Your task to perform on an android device: Clear all items from cart on amazon. Search for bose soundsport free on amazon, select the first entry, and add it to the cart. Image 0: 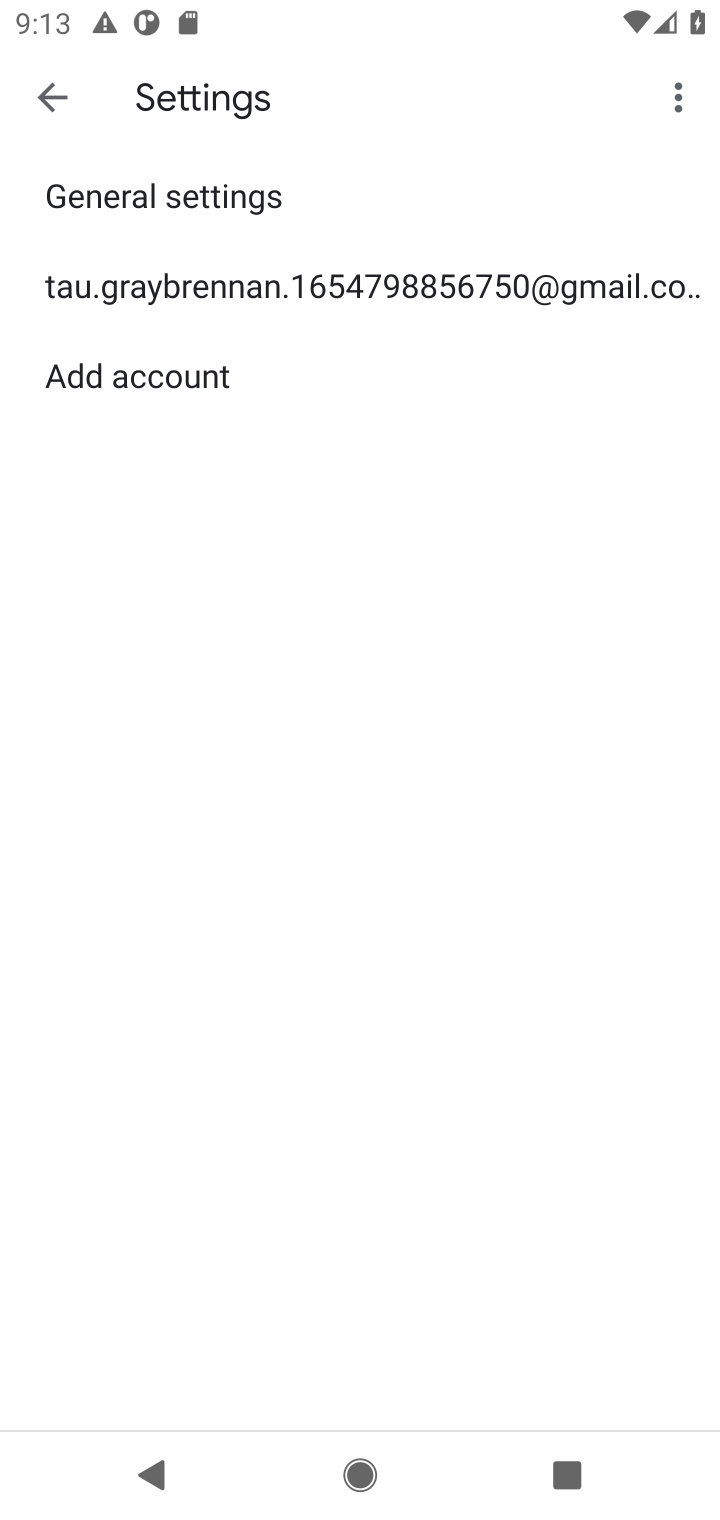
Step 0: press home button
Your task to perform on an android device: Clear all items from cart on amazon. Search for bose soundsport free on amazon, select the first entry, and add it to the cart. Image 1: 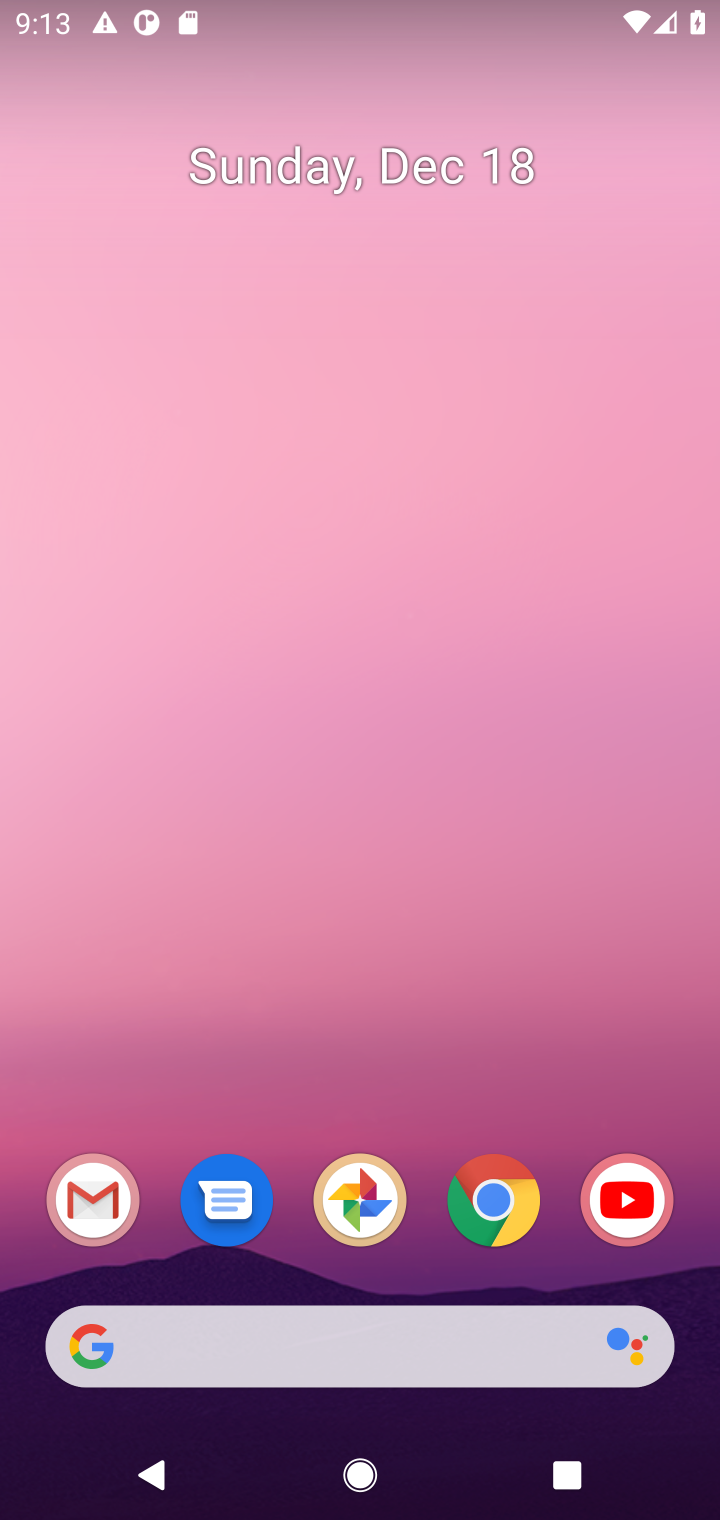
Step 1: click (487, 1212)
Your task to perform on an android device: Clear all items from cart on amazon. Search for bose soundsport free on amazon, select the first entry, and add it to the cart. Image 2: 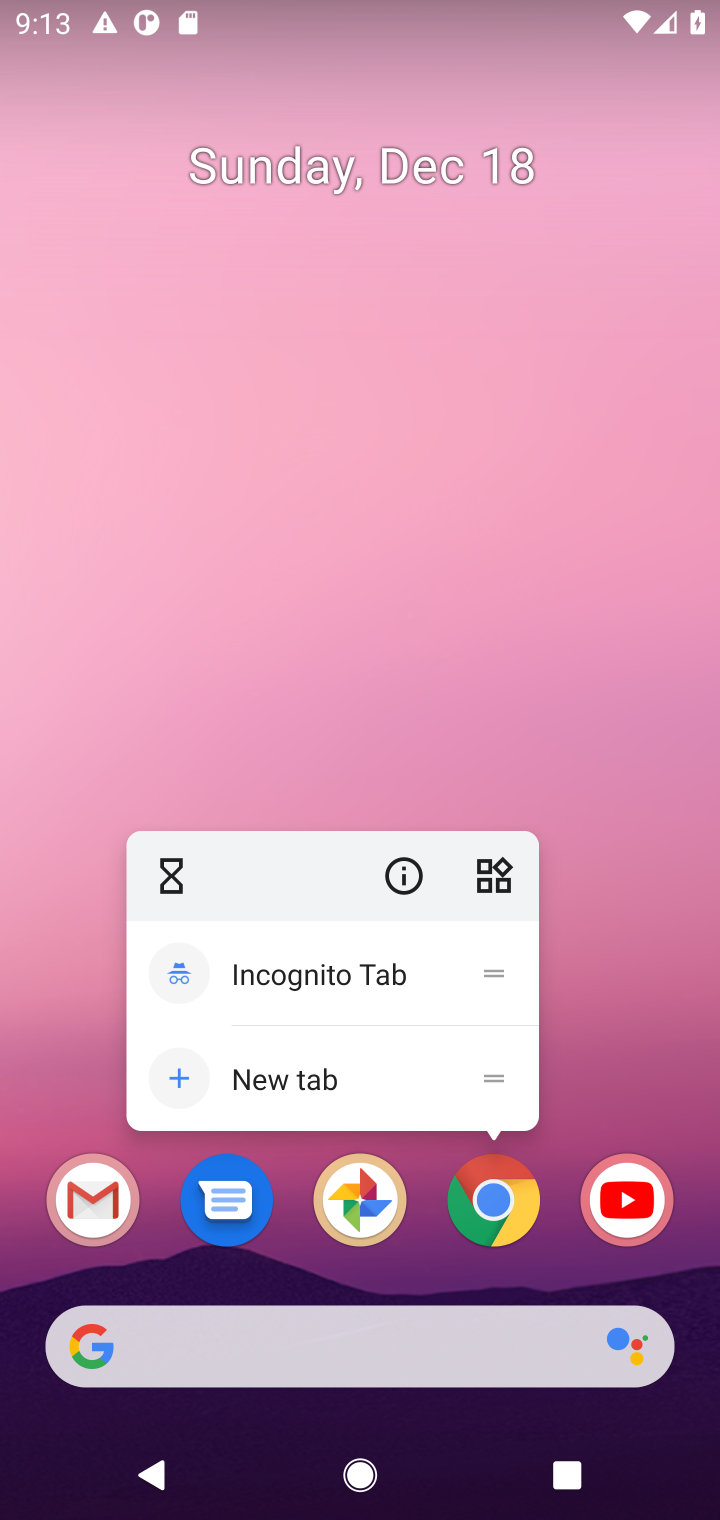
Step 2: click (488, 1212)
Your task to perform on an android device: Clear all items from cart on amazon. Search for bose soundsport free on amazon, select the first entry, and add it to the cart. Image 3: 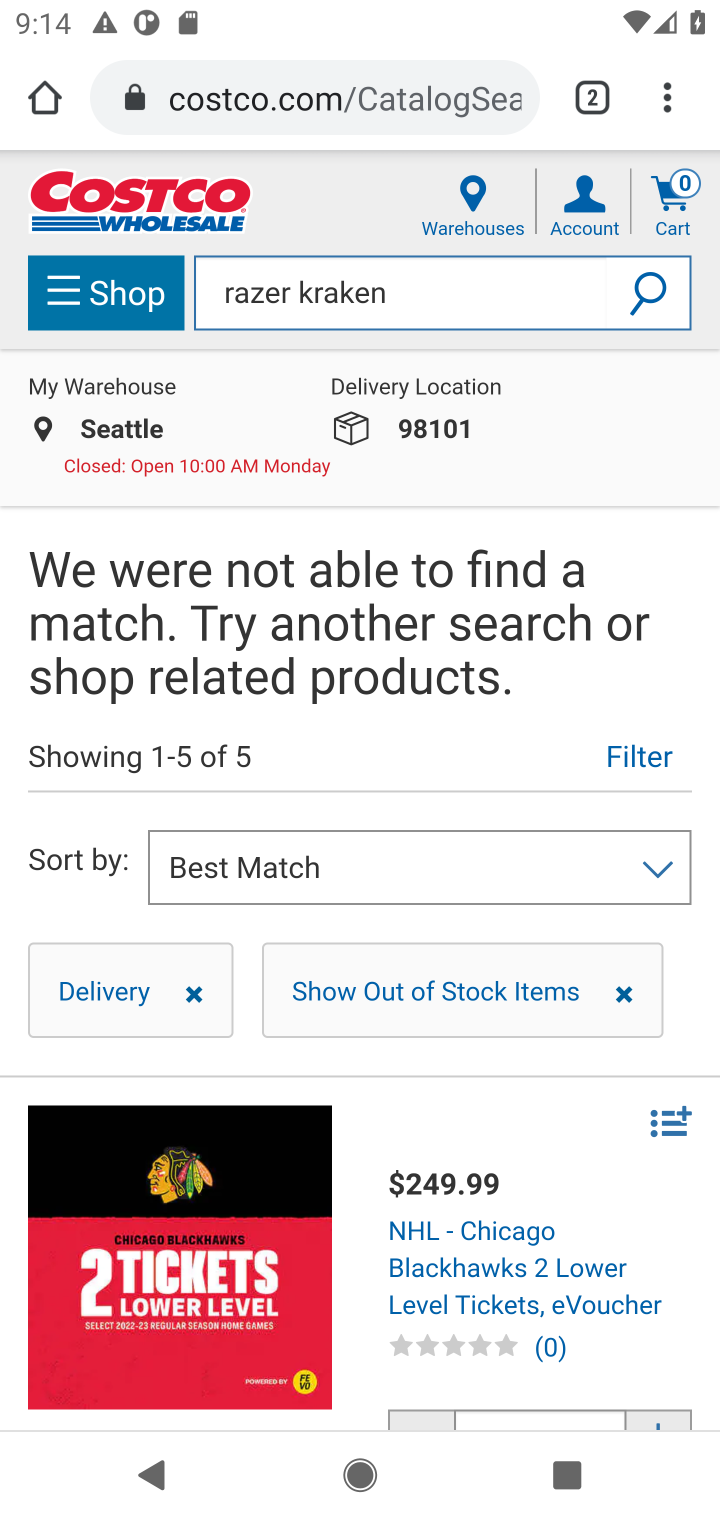
Step 3: click (220, 108)
Your task to perform on an android device: Clear all items from cart on amazon. Search for bose soundsport free on amazon, select the first entry, and add it to the cart. Image 4: 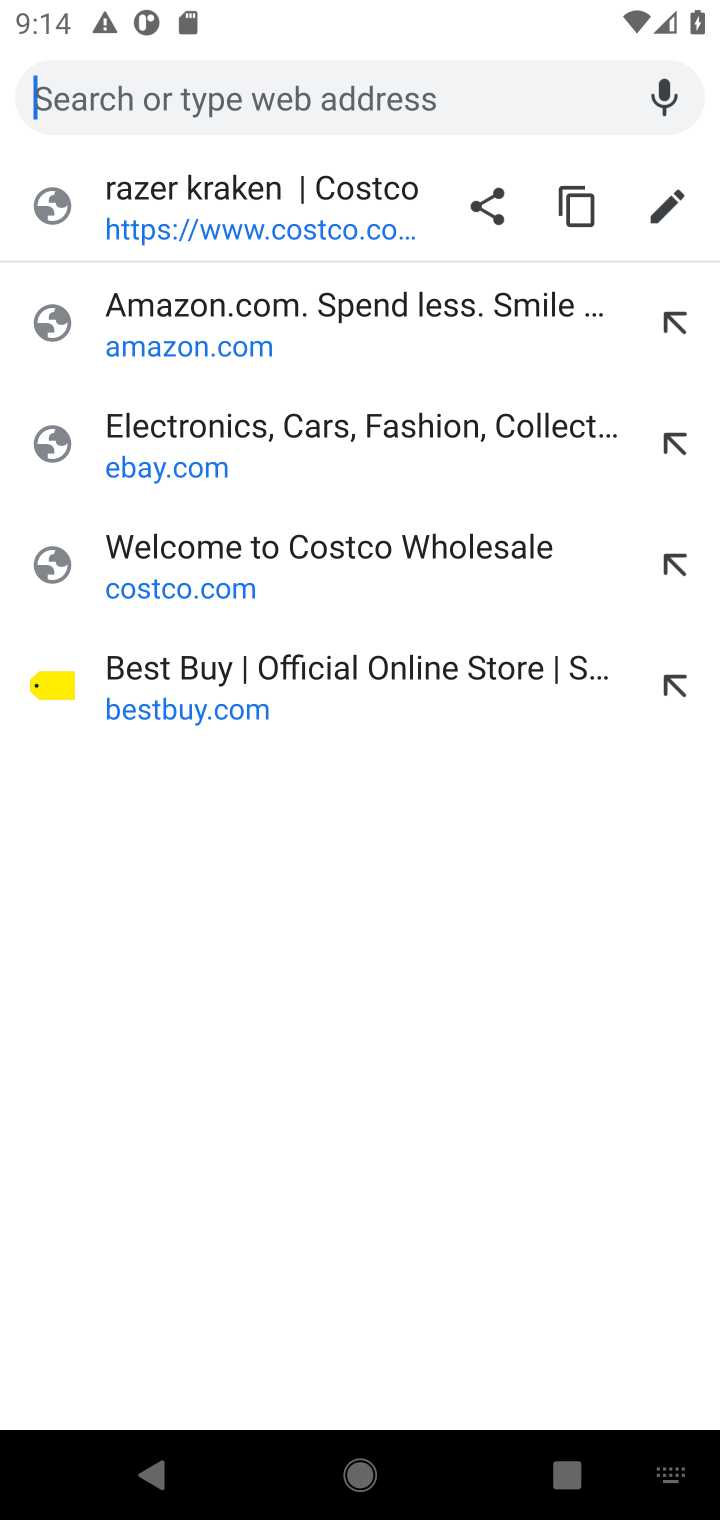
Step 4: click (142, 324)
Your task to perform on an android device: Clear all items from cart on amazon. Search for bose soundsport free on amazon, select the first entry, and add it to the cart. Image 5: 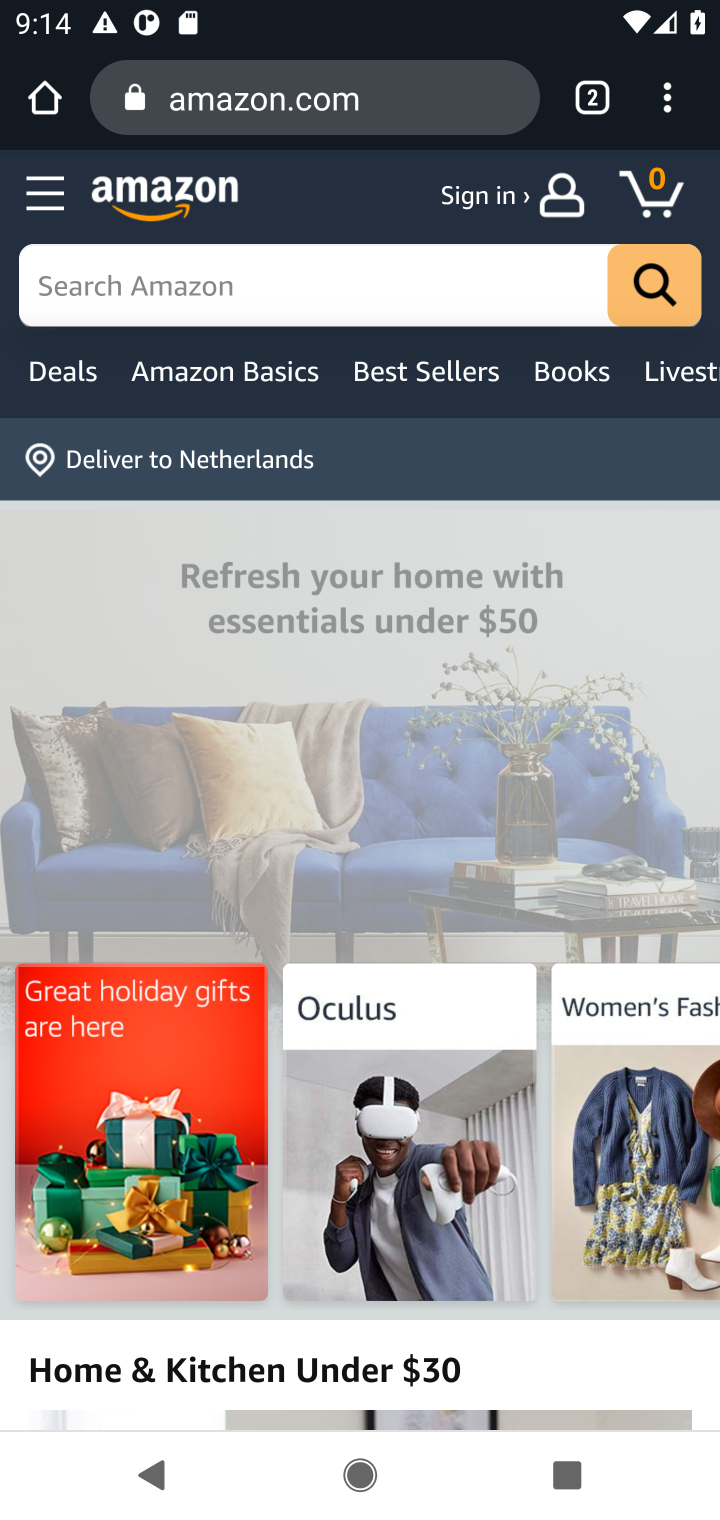
Step 5: click (648, 199)
Your task to perform on an android device: Clear all items from cart on amazon. Search for bose soundsport free on amazon, select the first entry, and add it to the cart. Image 6: 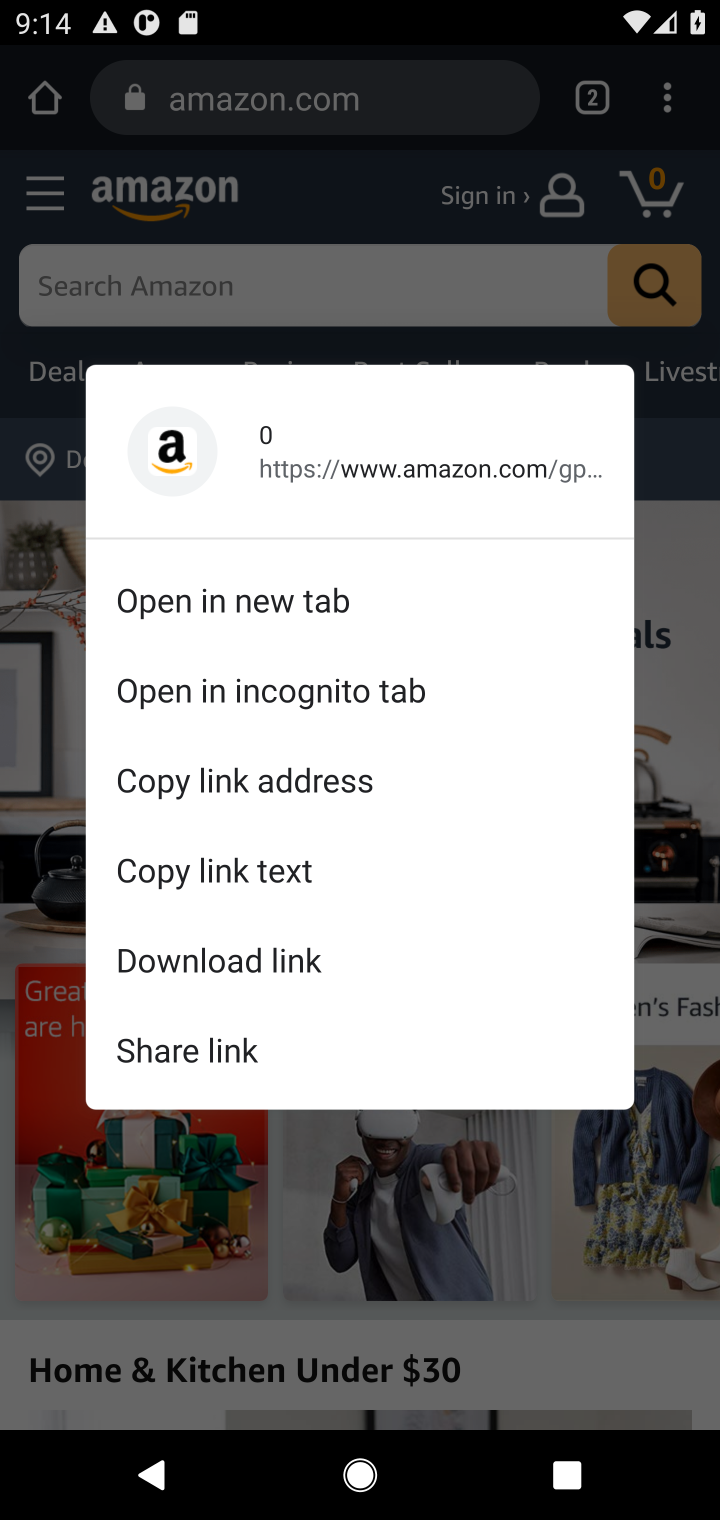
Step 6: click (646, 199)
Your task to perform on an android device: Clear all items from cart on amazon. Search for bose soundsport free on amazon, select the first entry, and add it to the cart. Image 7: 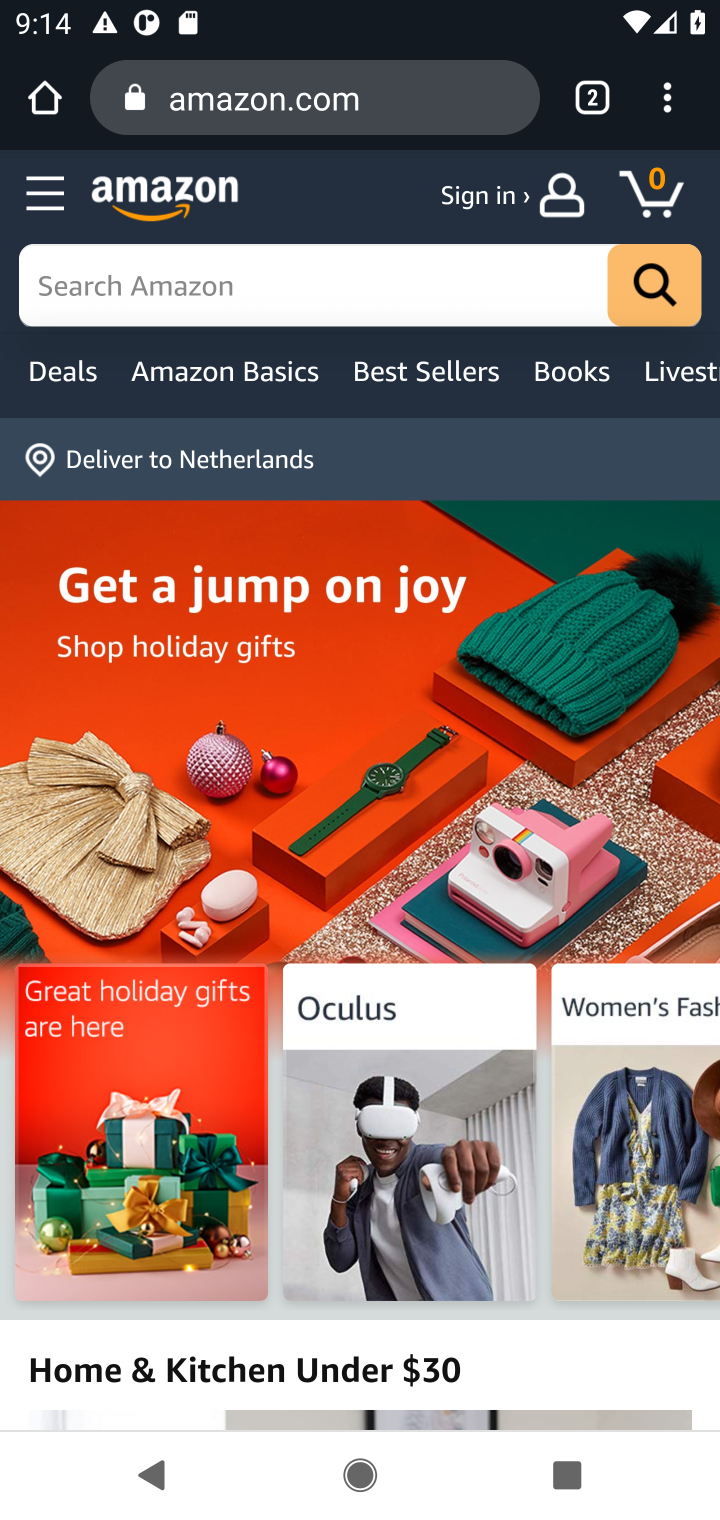
Step 7: click (644, 199)
Your task to perform on an android device: Clear all items from cart on amazon. Search for bose soundsport free on amazon, select the first entry, and add it to the cart. Image 8: 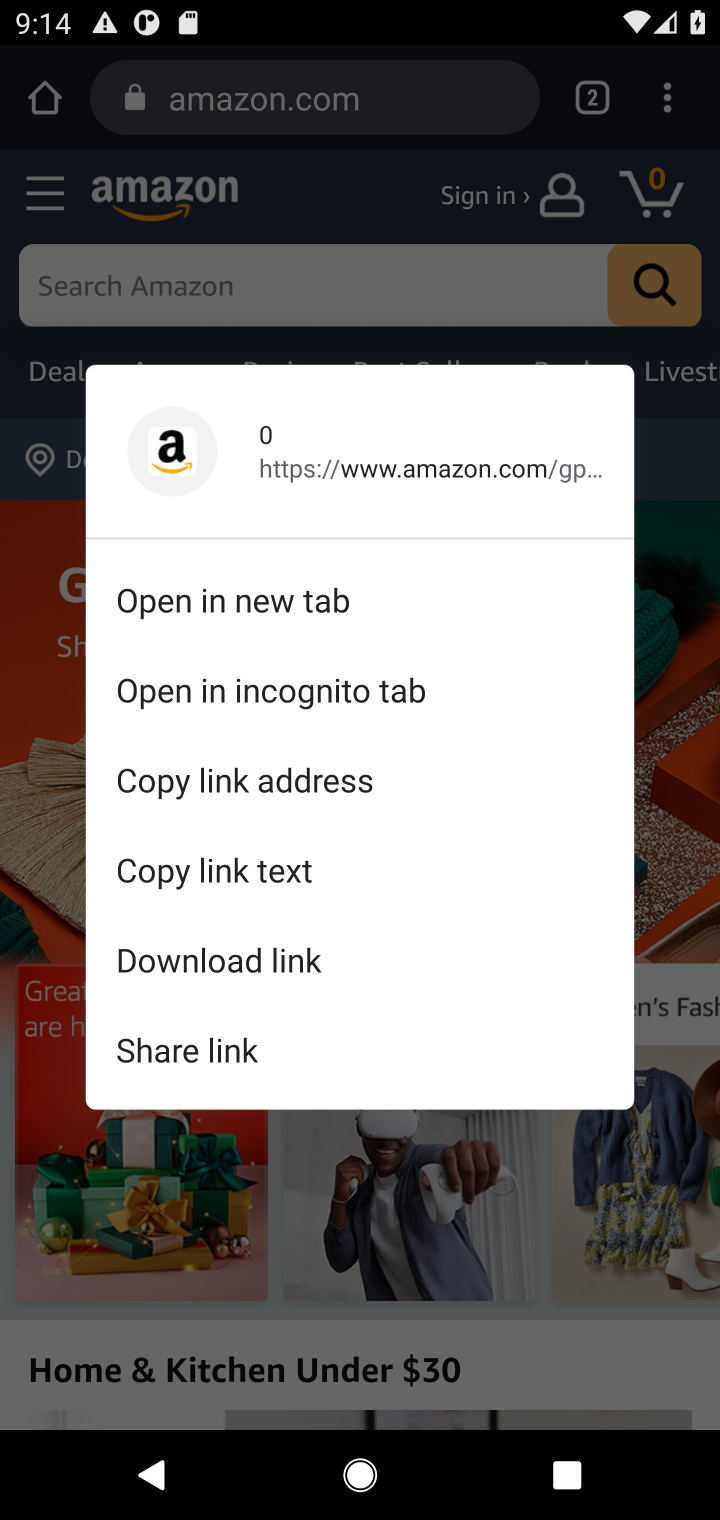
Step 8: click (644, 199)
Your task to perform on an android device: Clear all items from cart on amazon. Search for bose soundsport free on amazon, select the first entry, and add it to the cart. Image 9: 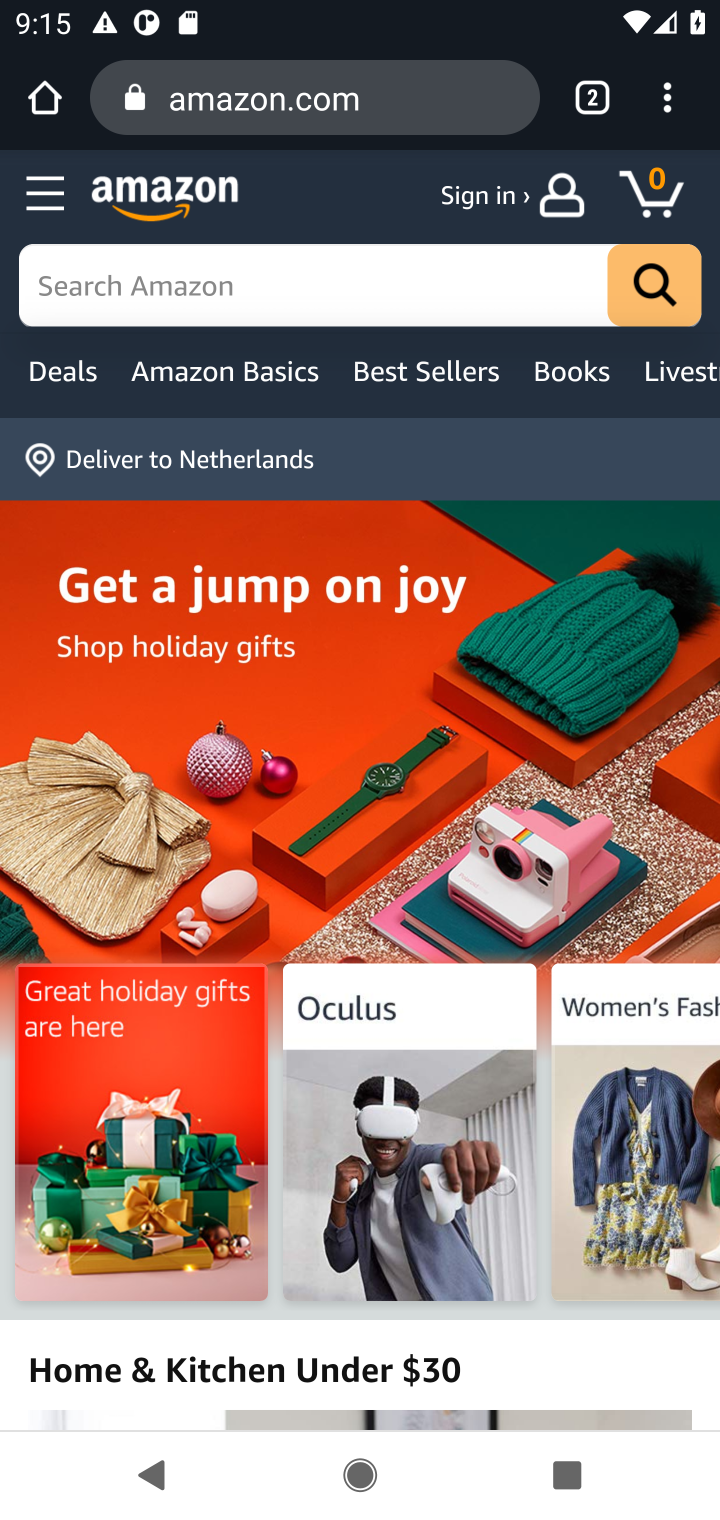
Step 9: click (645, 189)
Your task to perform on an android device: Clear all items from cart on amazon. Search for bose soundsport free on amazon, select the first entry, and add it to the cart. Image 10: 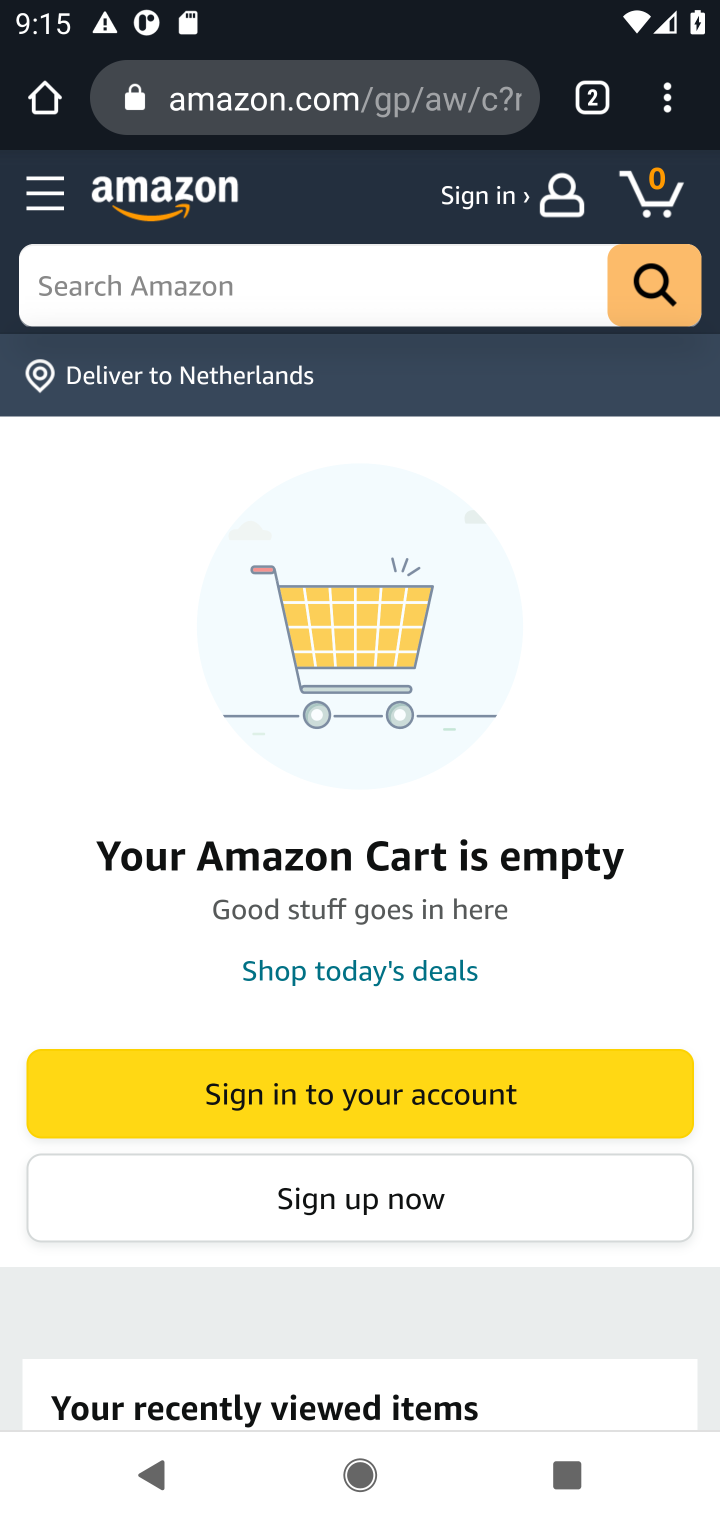
Step 10: click (105, 302)
Your task to perform on an android device: Clear all items from cart on amazon. Search for bose soundsport free on amazon, select the first entry, and add it to the cart. Image 11: 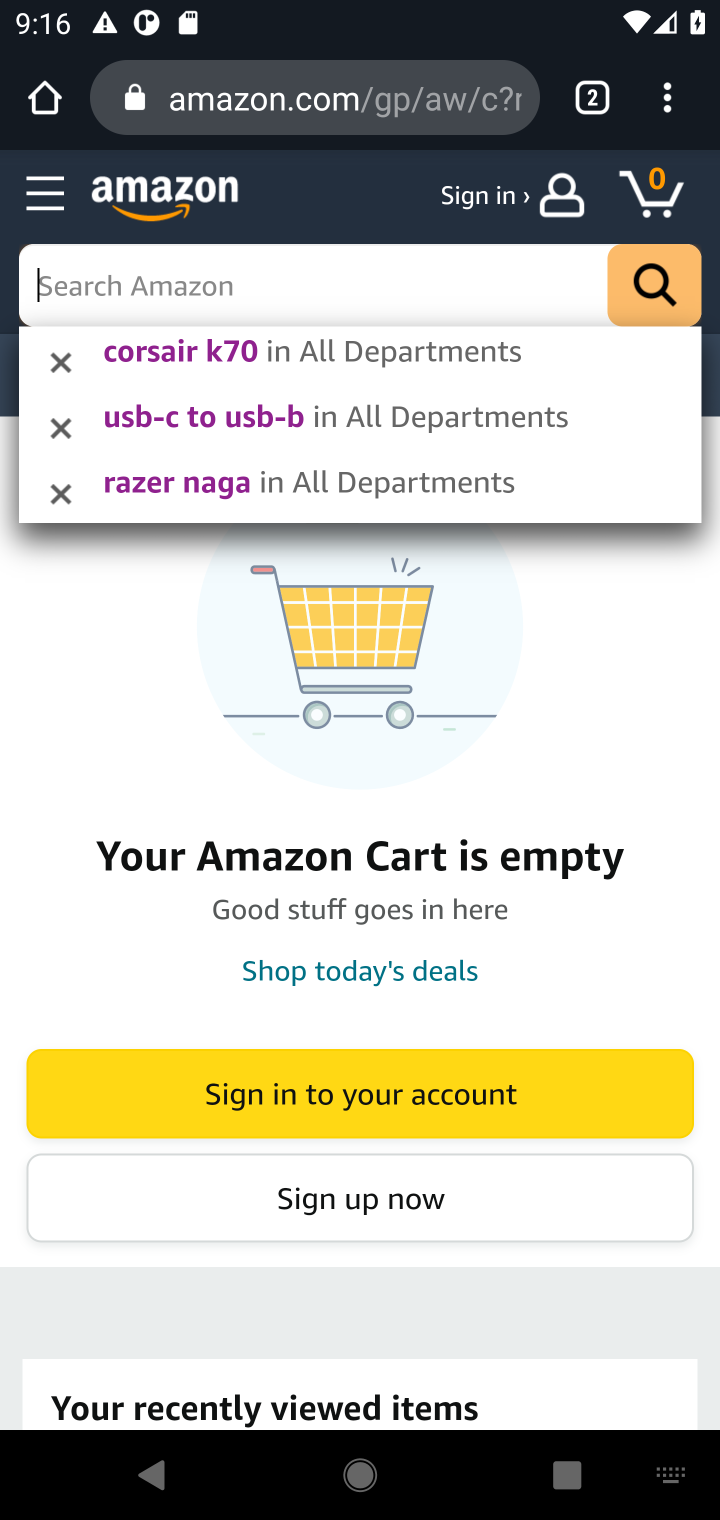
Step 11: type "bose soundsport free"
Your task to perform on an android device: Clear all items from cart on amazon. Search for bose soundsport free on amazon, select the first entry, and add it to the cart. Image 12: 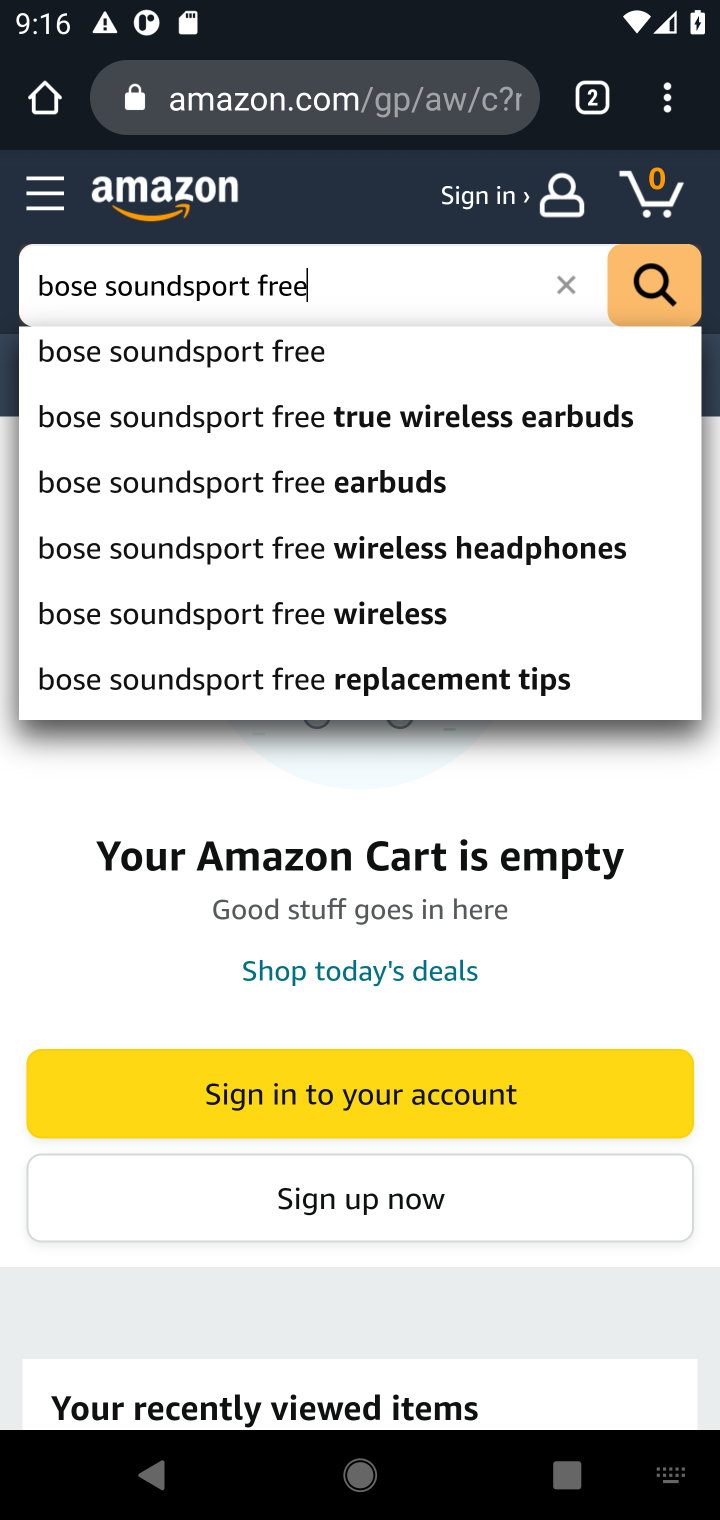
Step 12: click (173, 351)
Your task to perform on an android device: Clear all items from cart on amazon. Search for bose soundsport free on amazon, select the first entry, and add it to the cart. Image 13: 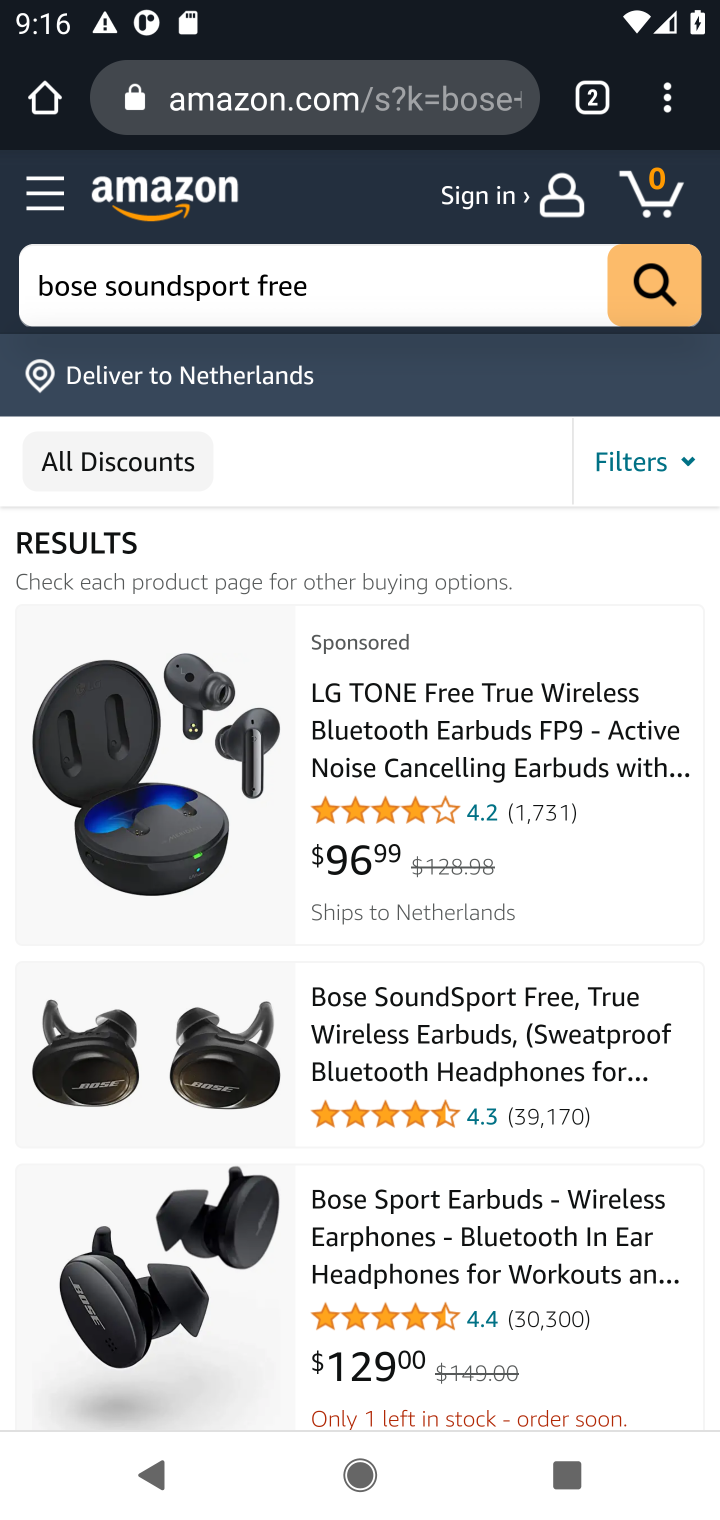
Step 13: task complete